Your task to perform on an android device: open chrome privacy settings Image 0: 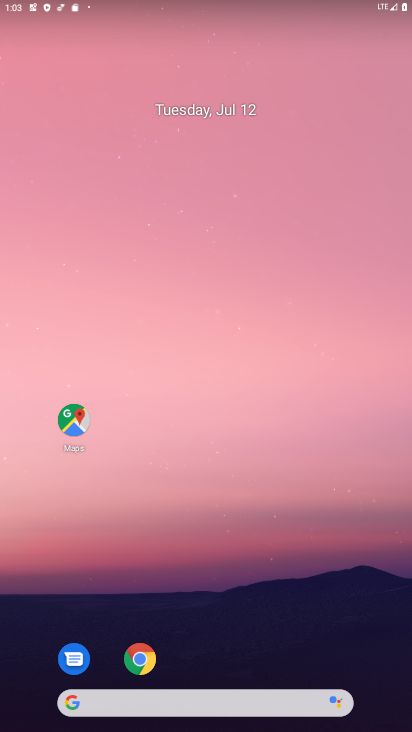
Step 0: drag from (168, 729) to (165, 650)
Your task to perform on an android device: open chrome privacy settings Image 1: 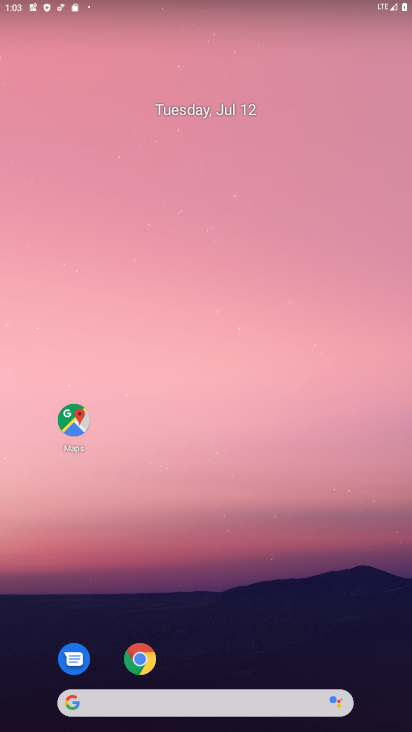
Step 1: drag from (162, 304) to (163, 136)
Your task to perform on an android device: open chrome privacy settings Image 2: 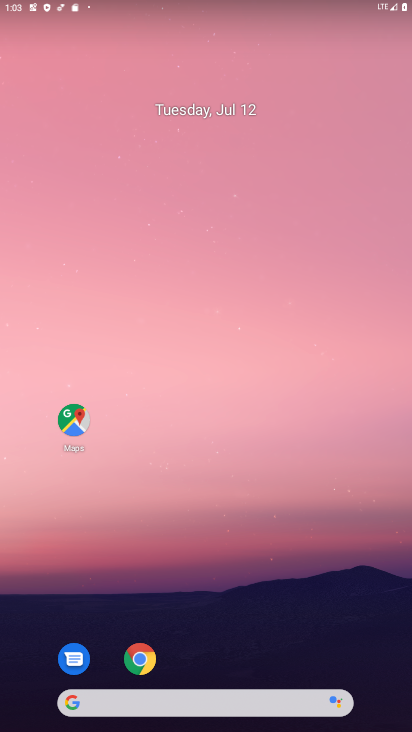
Step 2: drag from (236, 726) to (228, 227)
Your task to perform on an android device: open chrome privacy settings Image 3: 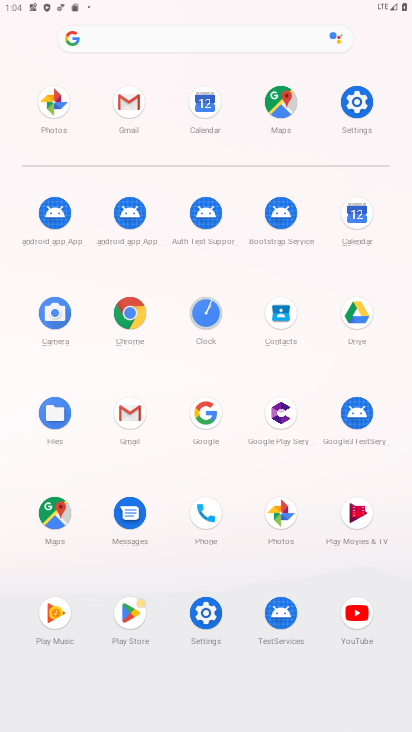
Step 3: click (125, 309)
Your task to perform on an android device: open chrome privacy settings Image 4: 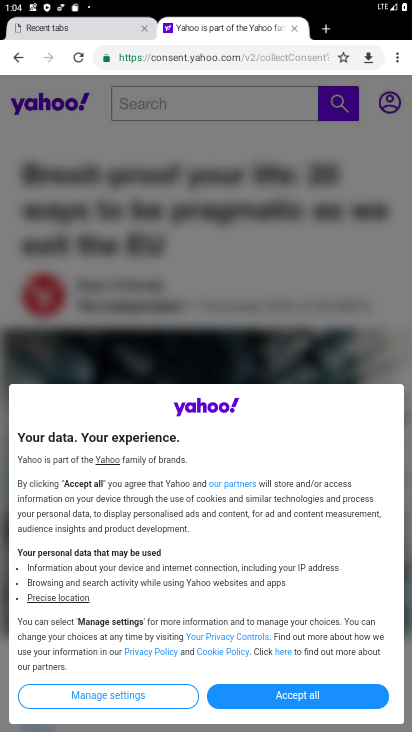
Step 4: click (396, 59)
Your task to perform on an android device: open chrome privacy settings Image 5: 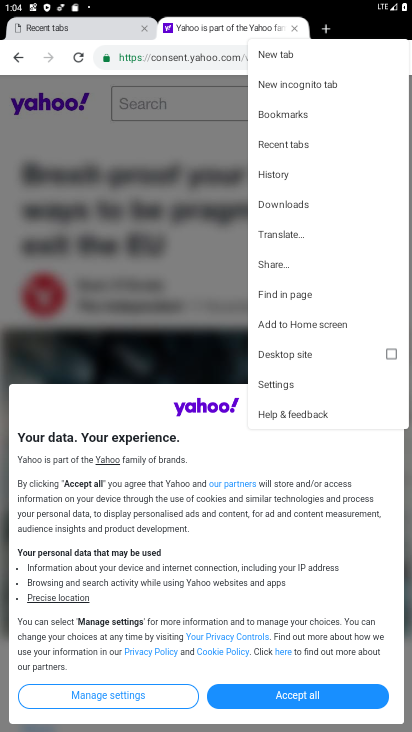
Step 5: click (278, 383)
Your task to perform on an android device: open chrome privacy settings Image 6: 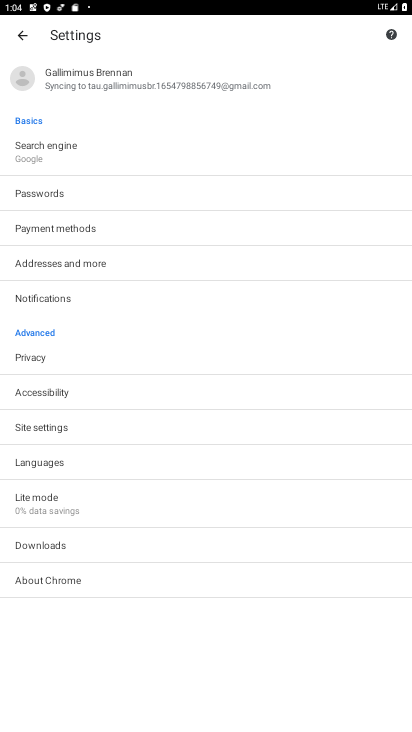
Step 6: click (33, 354)
Your task to perform on an android device: open chrome privacy settings Image 7: 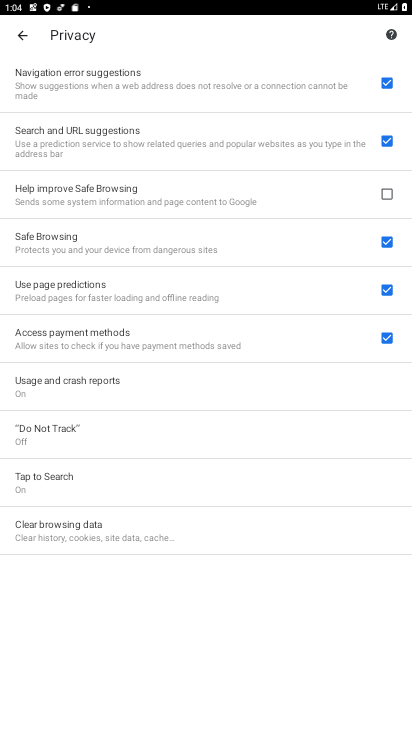
Step 7: task complete